Your task to perform on an android device: see creations saved in the google photos Image 0: 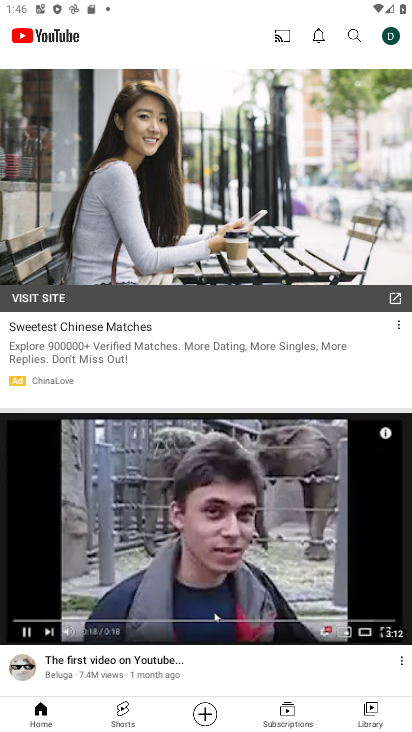
Step 0: press home button
Your task to perform on an android device: see creations saved in the google photos Image 1: 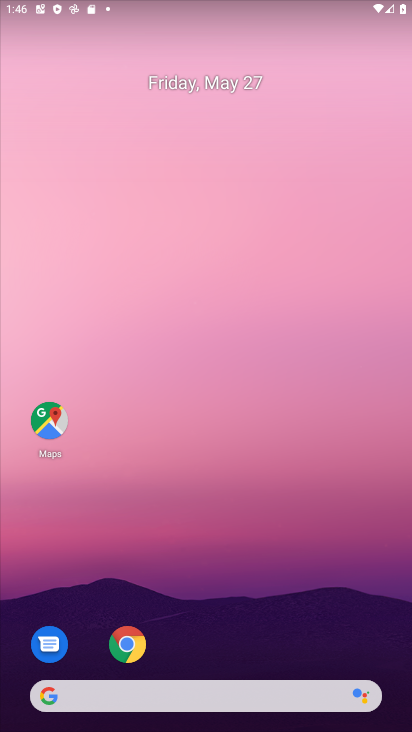
Step 1: drag from (278, 574) to (270, 54)
Your task to perform on an android device: see creations saved in the google photos Image 2: 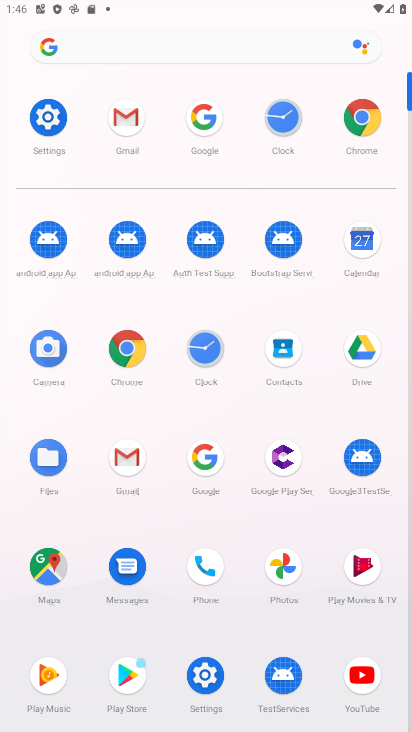
Step 2: click (279, 573)
Your task to perform on an android device: see creations saved in the google photos Image 3: 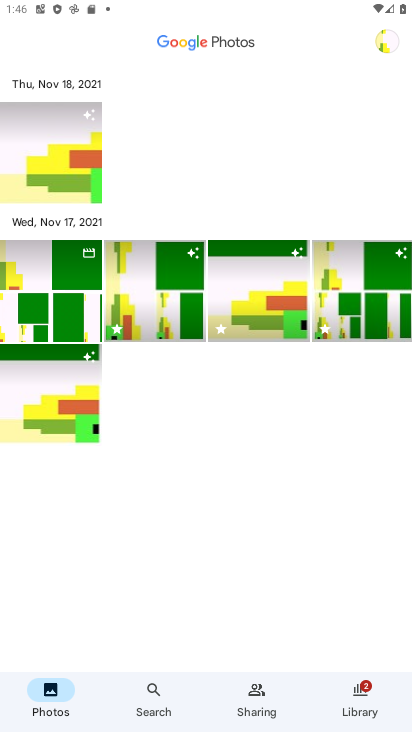
Step 3: click (164, 701)
Your task to perform on an android device: see creations saved in the google photos Image 4: 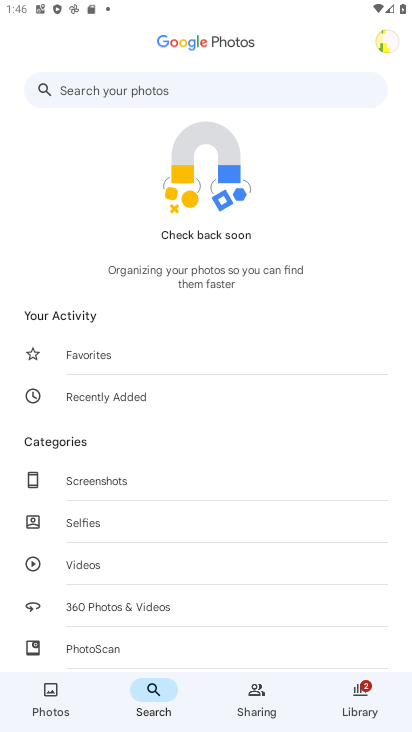
Step 4: drag from (100, 610) to (93, 249)
Your task to perform on an android device: see creations saved in the google photos Image 5: 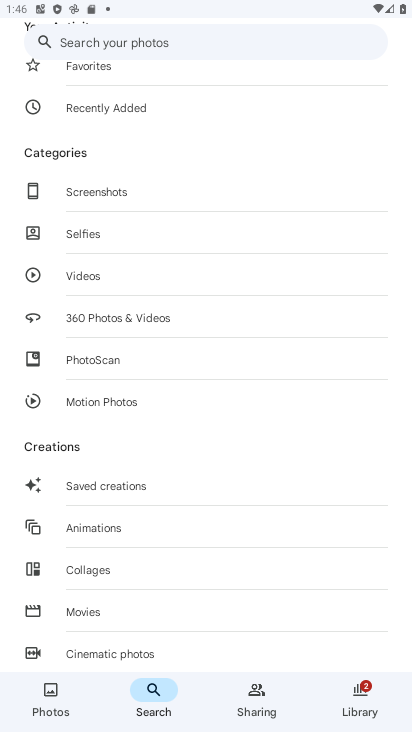
Step 5: click (113, 486)
Your task to perform on an android device: see creations saved in the google photos Image 6: 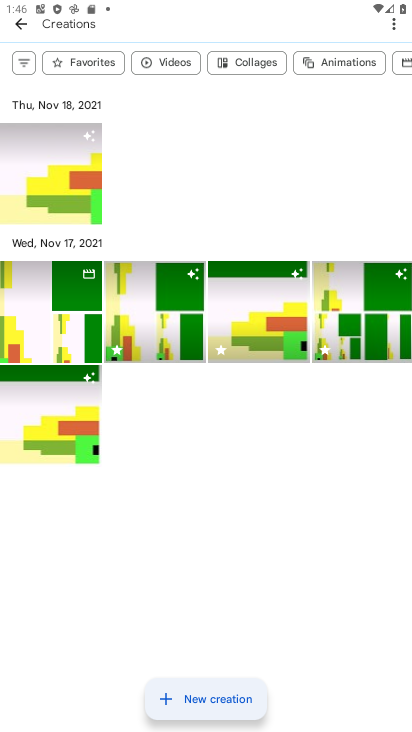
Step 6: task complete